Your task to perform on an android device: star an email in the gmail app Image 0: 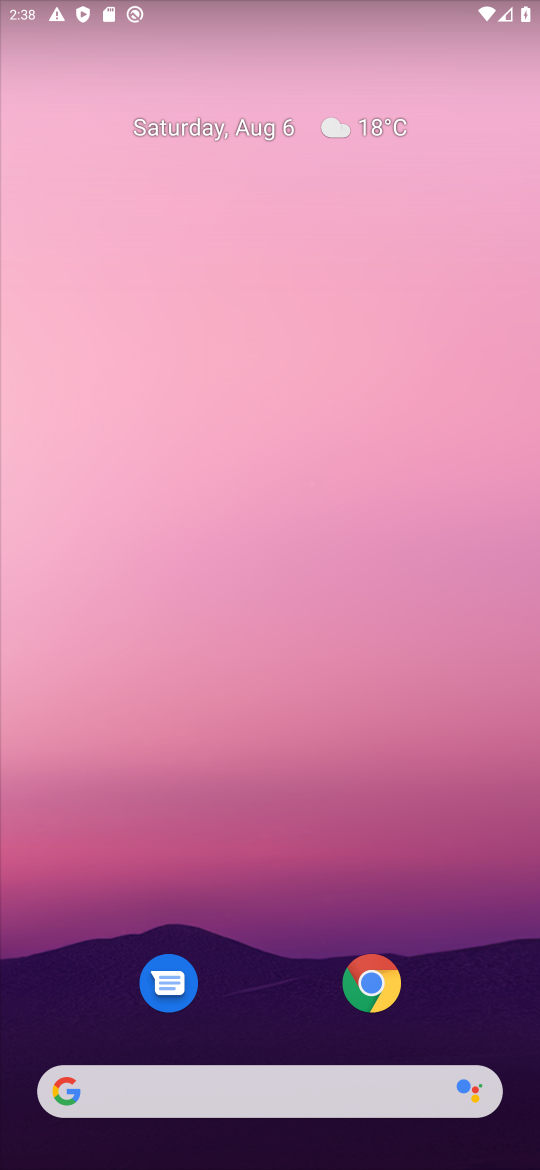
Step 0: drag from (153, 708) to (141, 125)
Your task to perform on an android device: star an email in the gmail app Image 1: 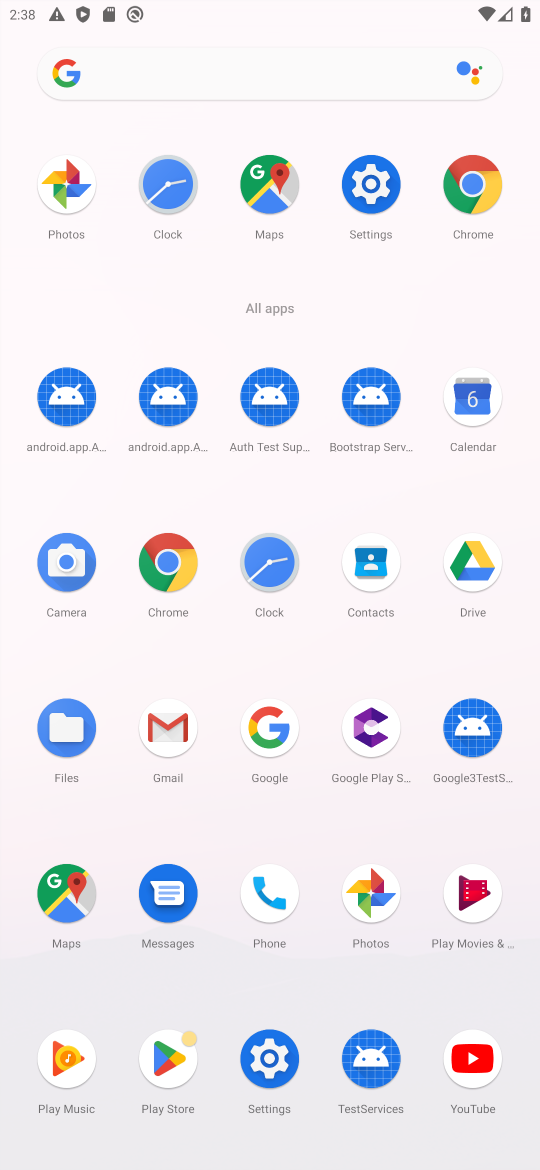
Step 1: click (185, 709)
Your task to perform on an android device: star an email in the gmail app Image 2: 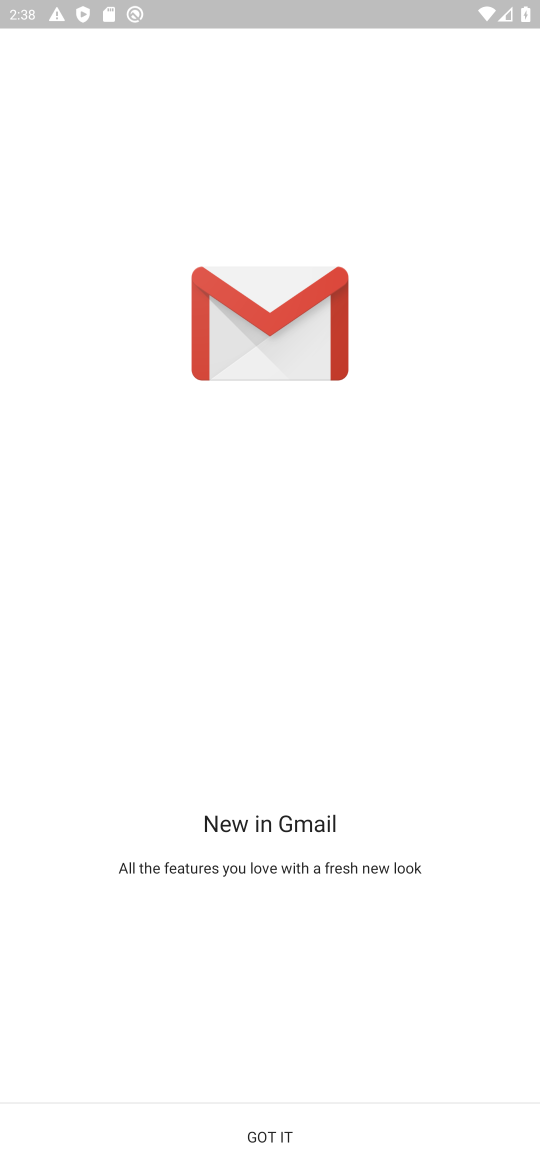
Step 2: click (315, 1122)
Your task to perform on an android device: star an email in the gmail app Image 3: 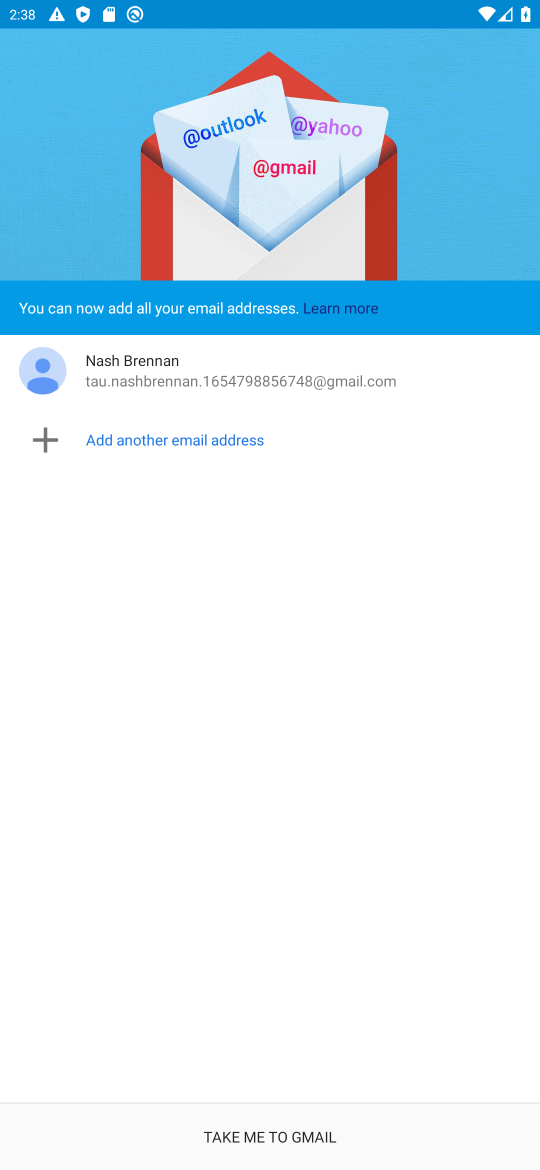
Step 3: click (356, 1120)
Your task to perform on an android device: star an email in the gmail app Image 4: 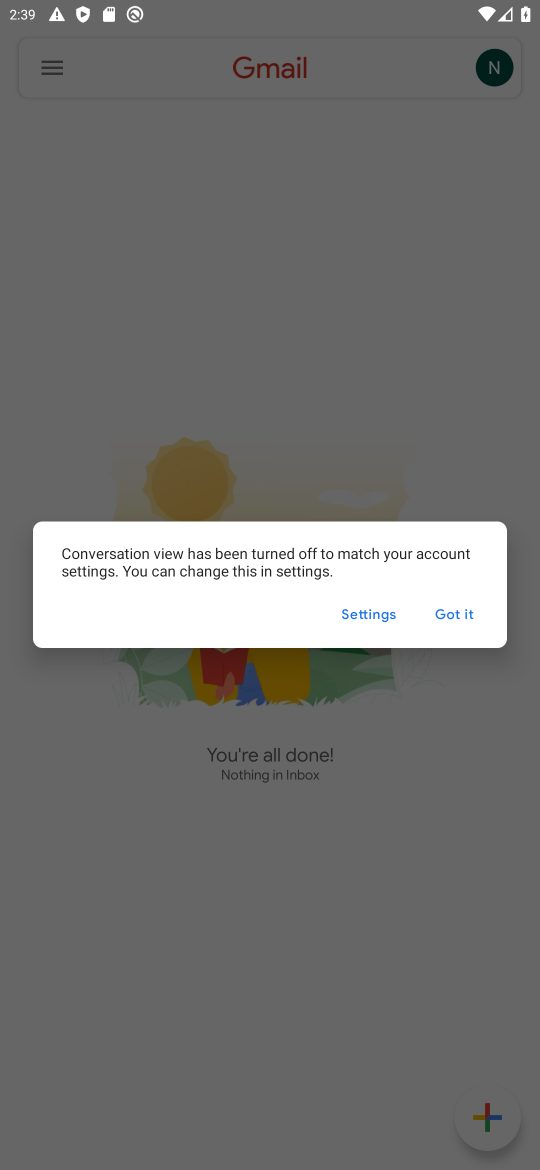
Step 4: press home button
Your task to perform on an android device: star an email in the gmail app Image 5: 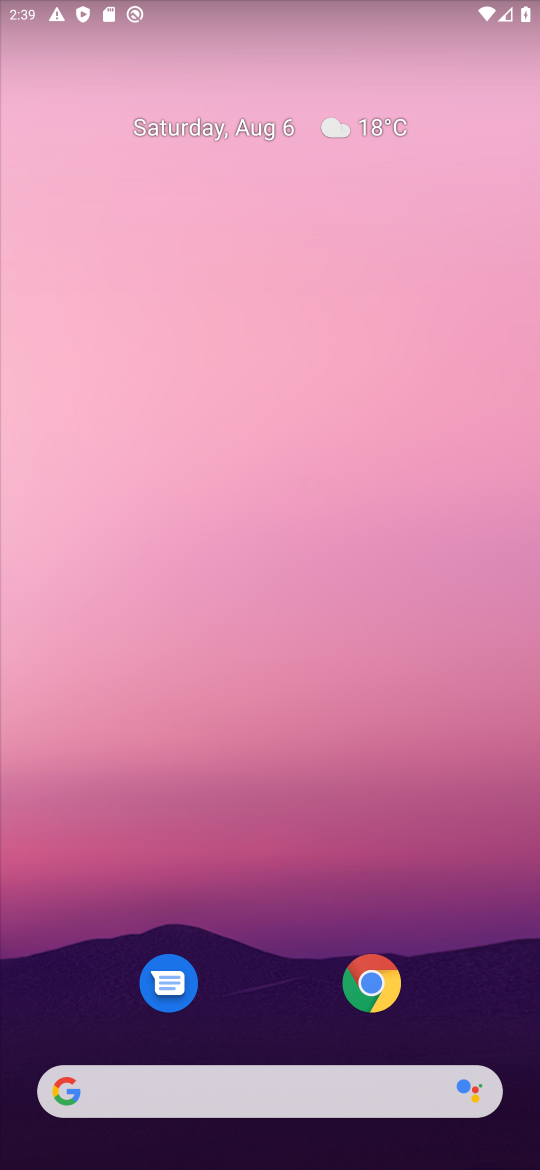
Step 5: drag from (237, 1064) to (201, 204)
Your task to perform on an android device: star an email in the gmail app Image 6: 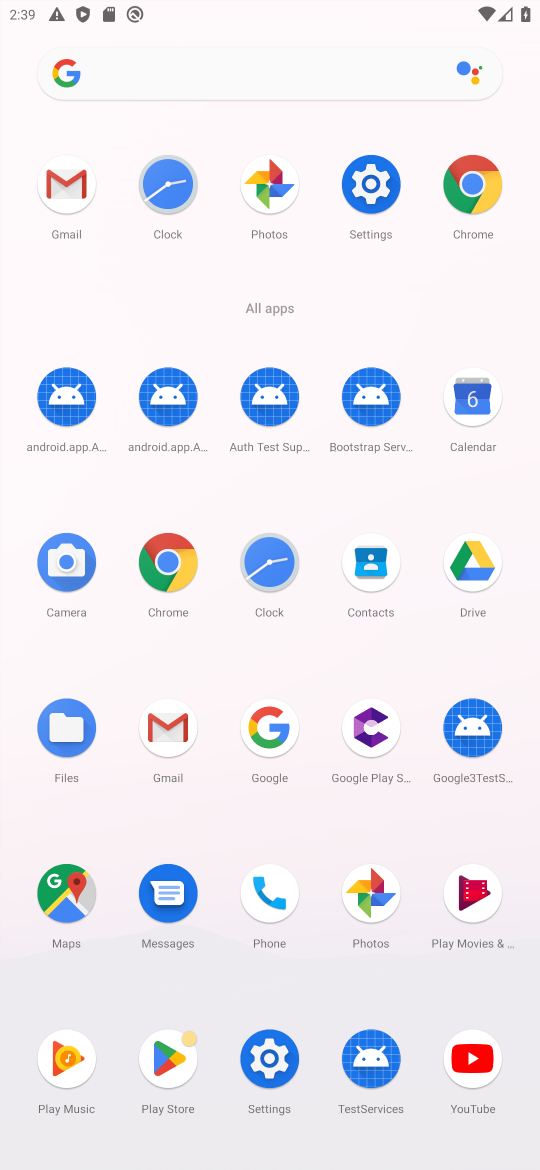
Step 6: click (173, 733)
Your task to perform on an android device: star an email in the gmail app Image 7: 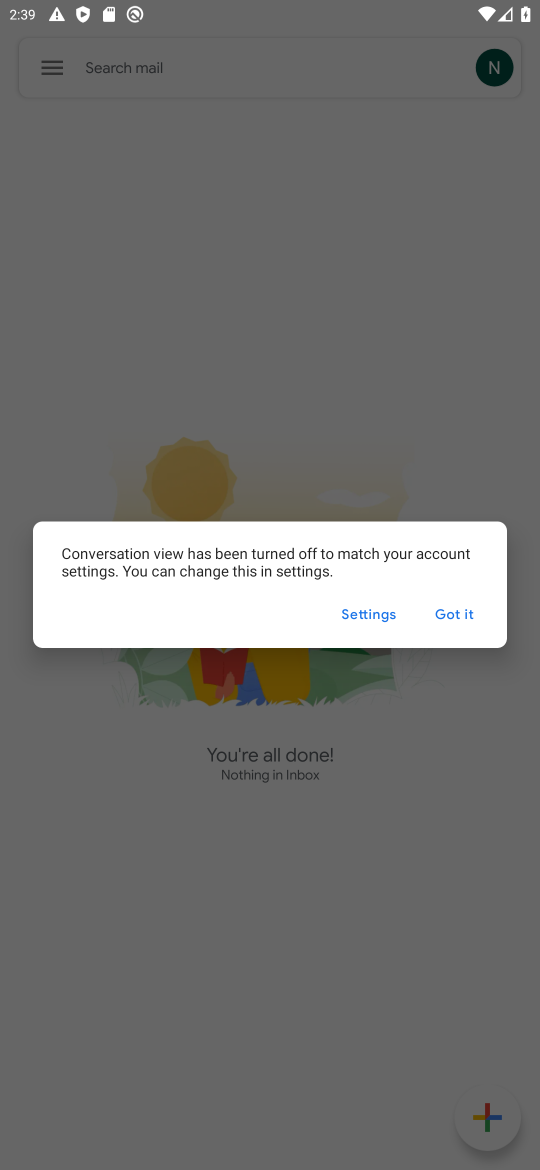
Step 7: click (470, 626)
Your task to perform on an android device: star an email in the gmail app Image 8: 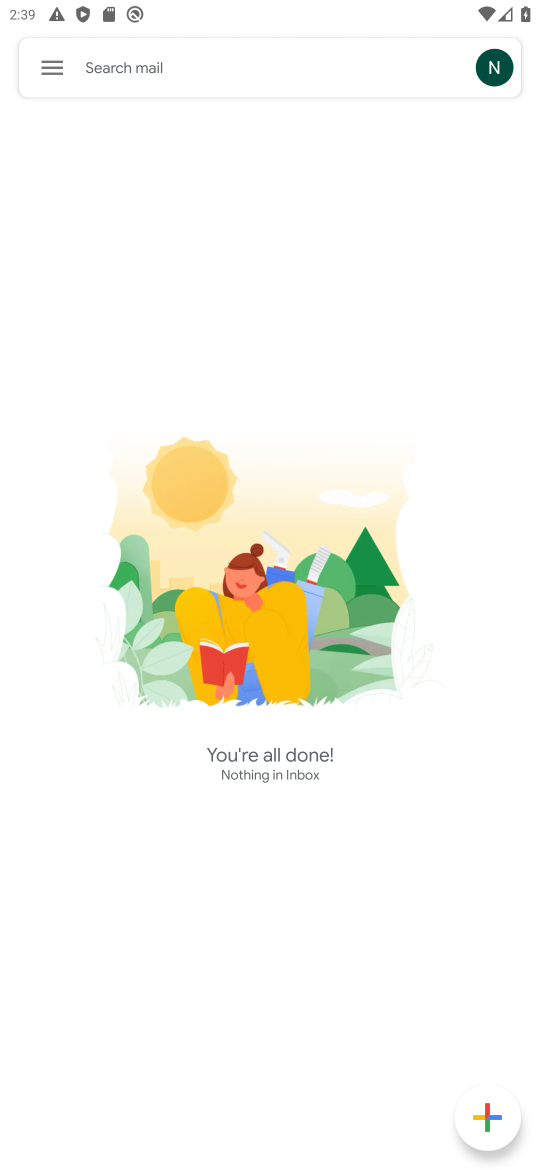
Step 8: click (44, 72)
Your task to perform on an android device: star an email in the gmail app Image 9: 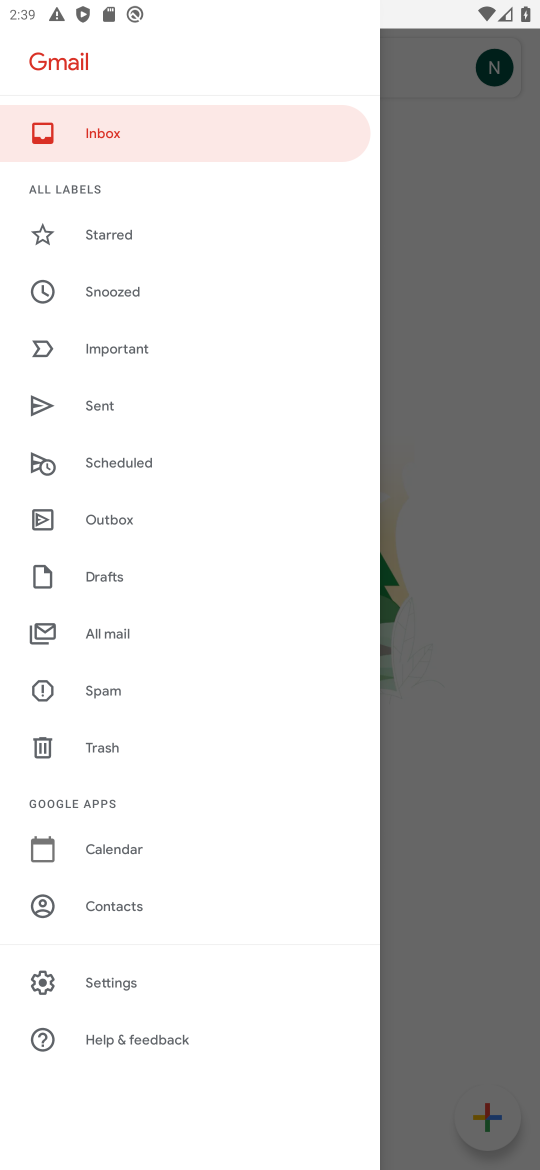
Step 9: click (86, 615)
Your task to perform on an android device: star an email in the gmail app Image 10: 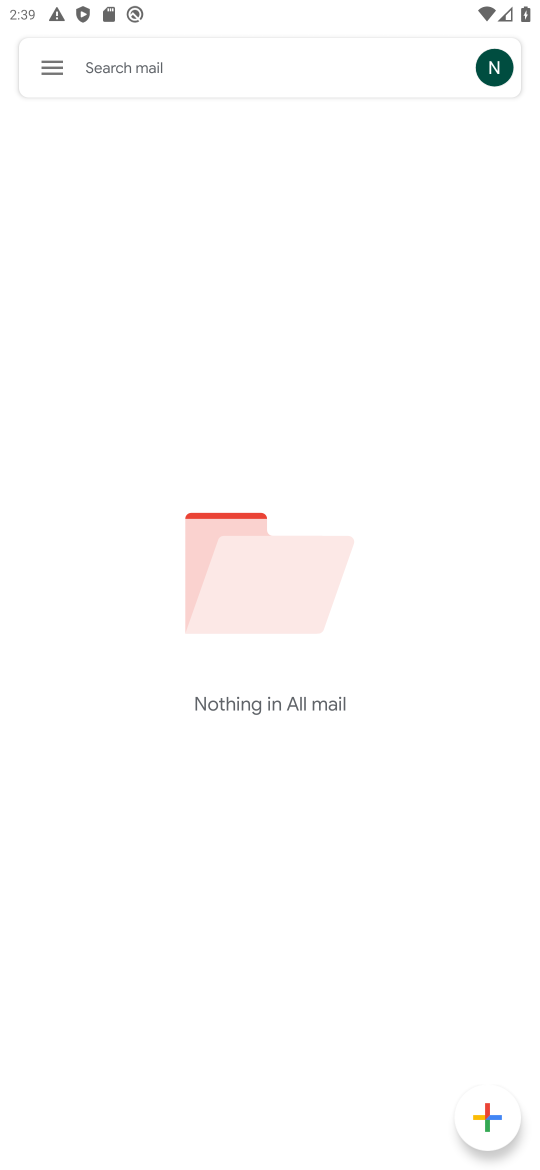
Step 10: task complete